Your task to perform on an android device: remove spam from my inbox in the gmail app Image 0: 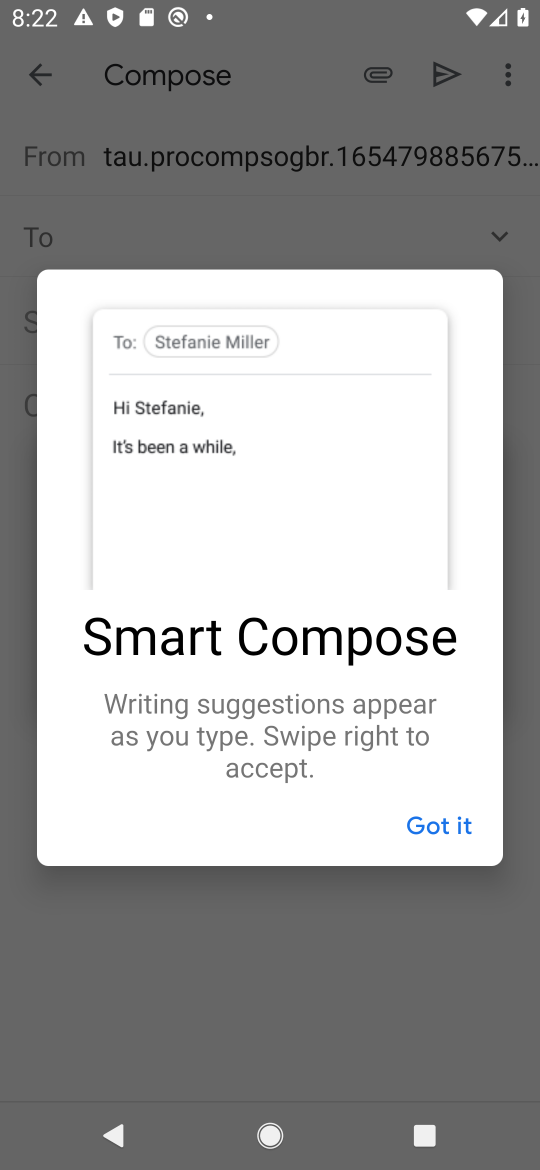
Step 0: press home button
Your task to perform on an android device: remove spam from my inbox in the gmail app Image 1: 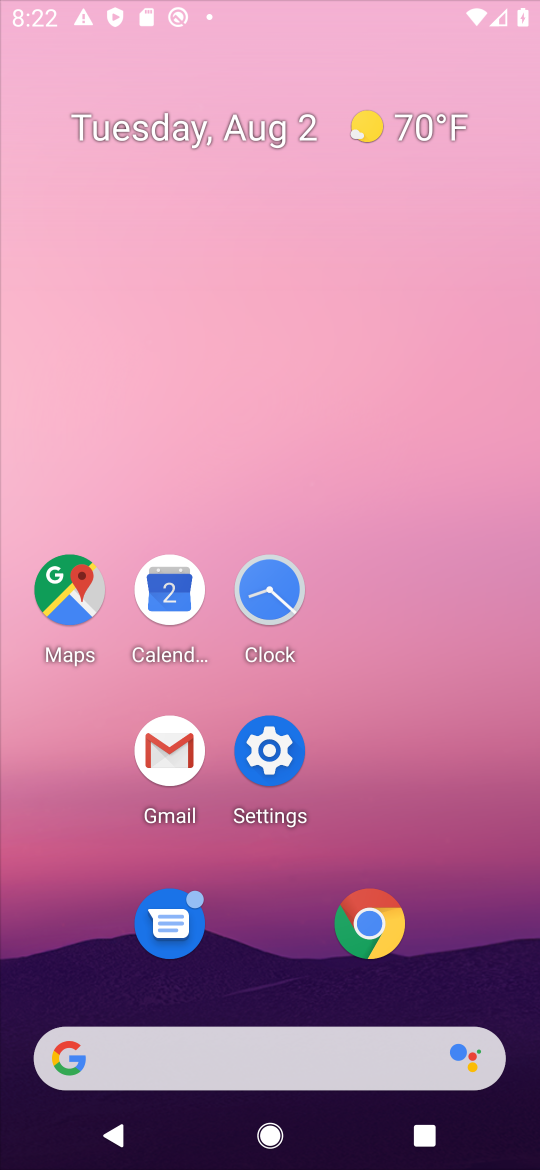
Step 1: press home button
Your task to perform on an android device: remove spam from my inbox in the gmail app Image 2: 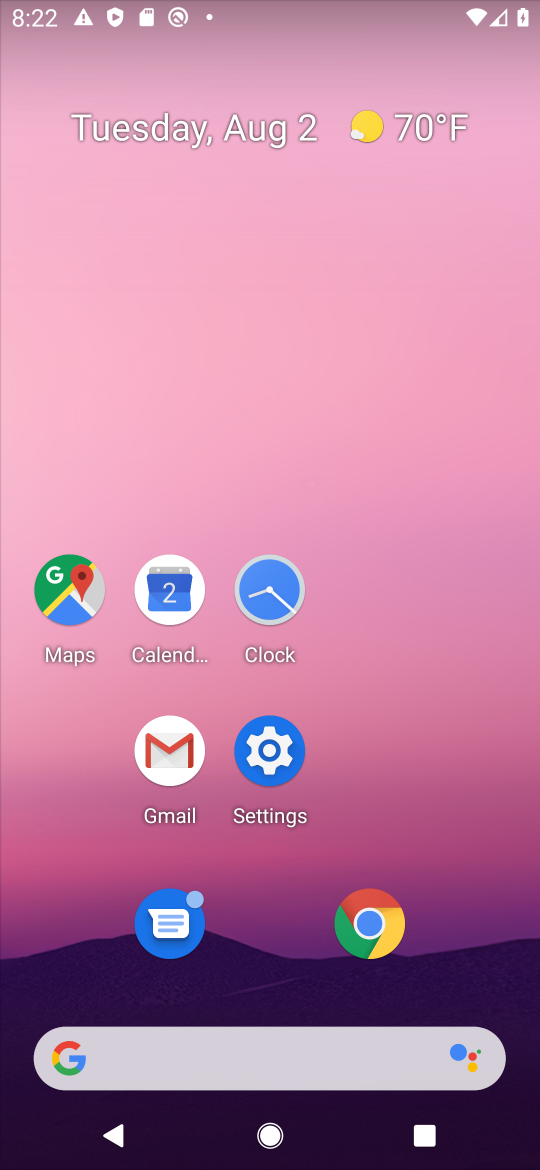
Step 2: click (146, 742)
Your task to perform on an android device: remove spam from my inbox in the gmail app Image 3: 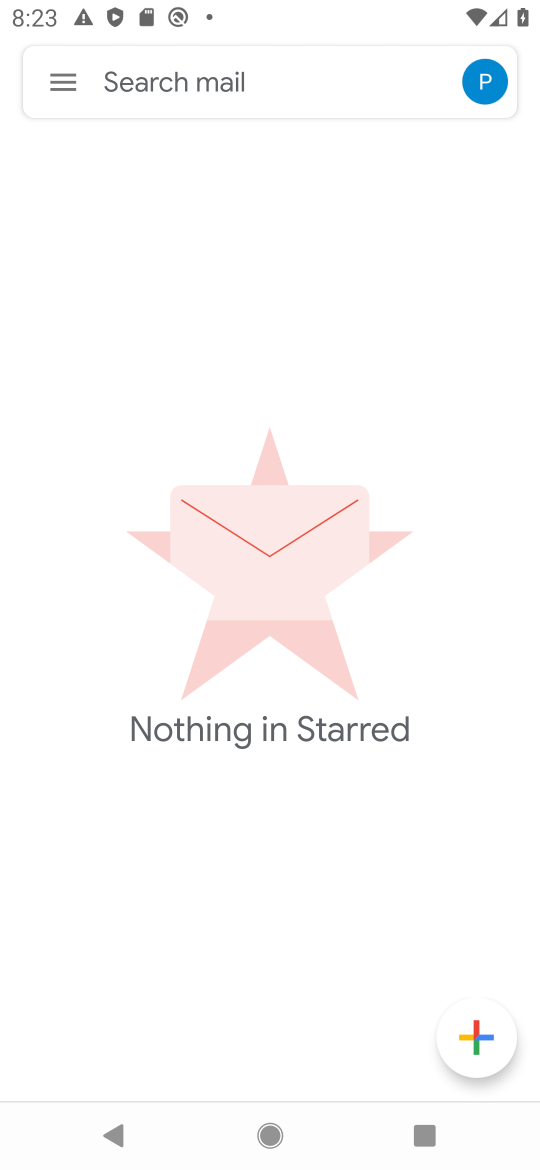
Step 3: click (70, 70)
Your task to perform on an android device: remove spam from my inbox in the gmail app Image 4: 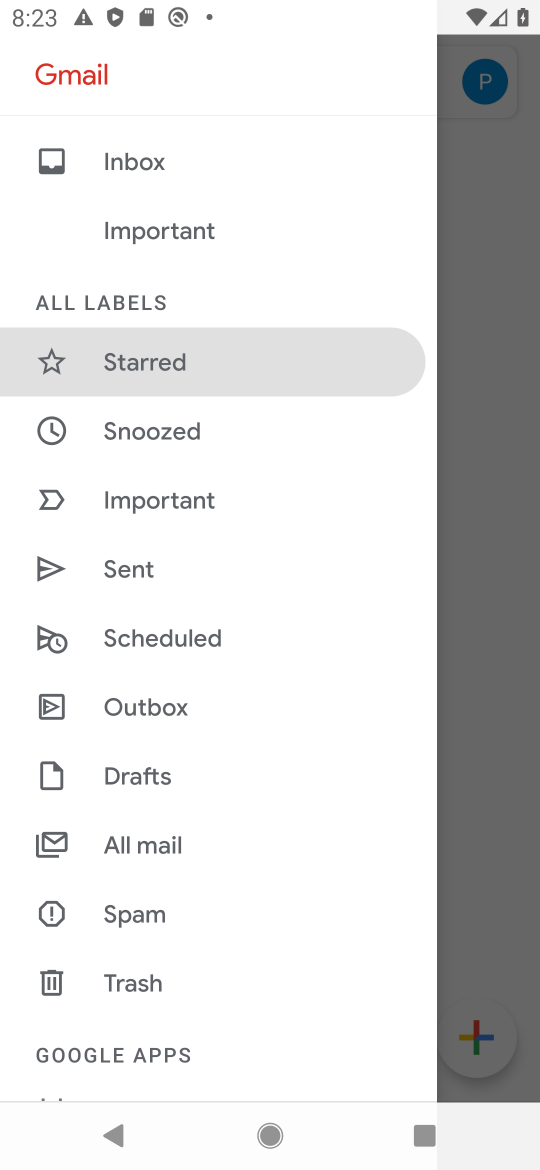
Step 4: click (138, 898)
Your task to perform on an android device: remove spam from my inbox in the gmail app Image 5: 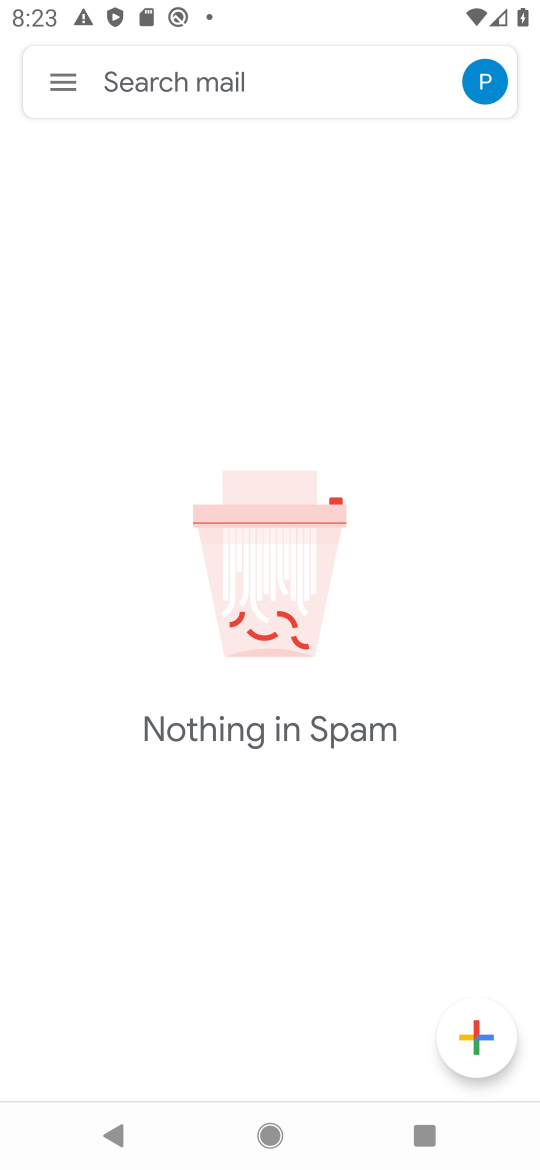
Step 5: task complete